Your task to perform on an android device: Open Google Maps Image 0: 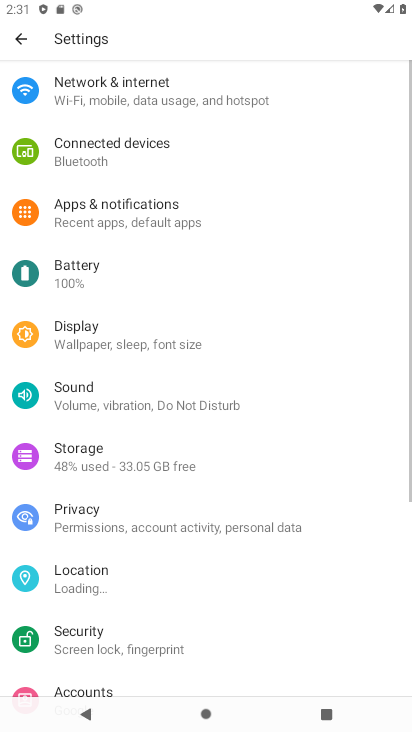
Step 0: press home button
Your task to perform on an android device: Open Google Maps Image 1: 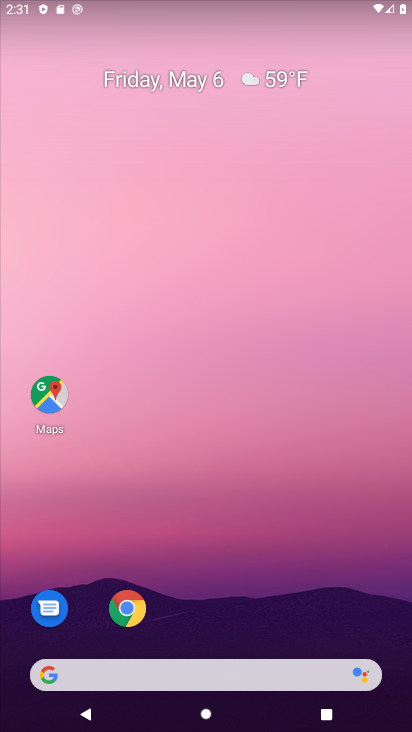
Step 1: click (49, 390)
Your task to perform on an android device: Open Google Maps Image 2: 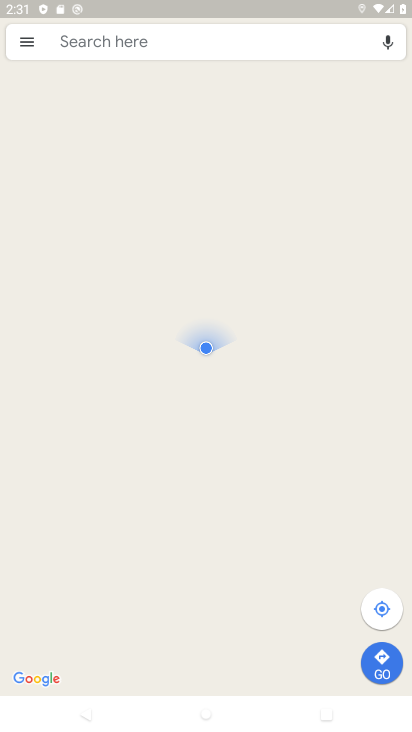
Step 2: task complete